Your task to perform on an android device: Open Chrome and go to settings Image 0: 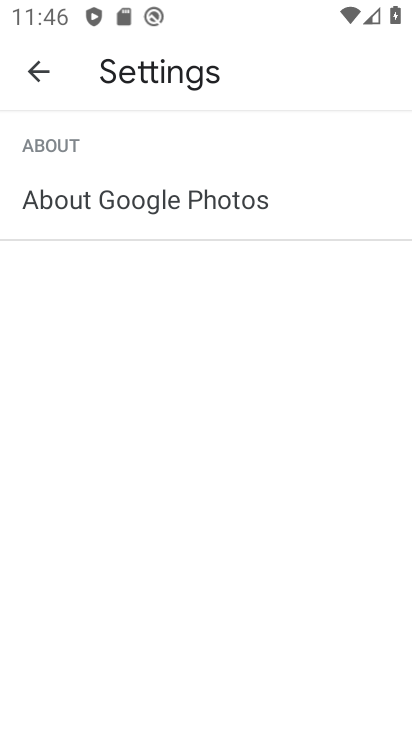
Step 0: press home button
Your task to perform on an android device: Open Chrome and go to settings Image 1: 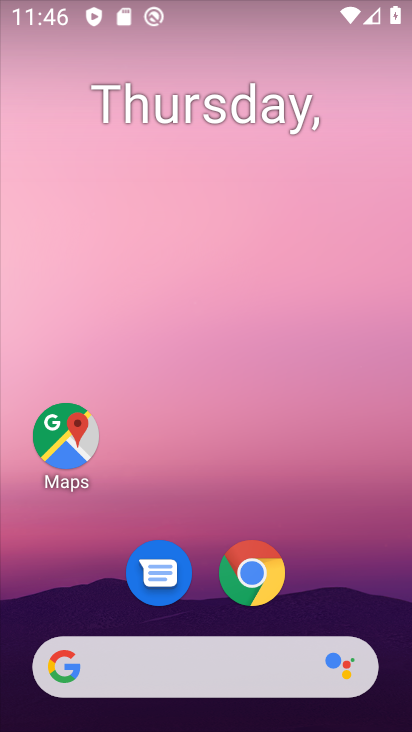
Step 1: click (253, 577)
Your task to perform on an android device: Open Chrome and go to settings Image 2: 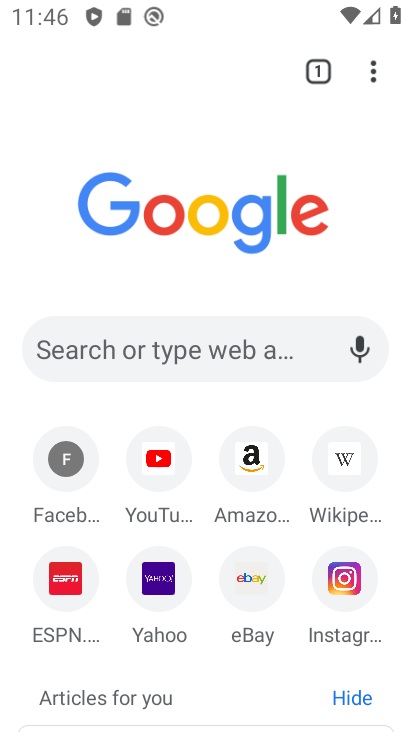
Step 2: click (368, 80)
Your task to perform on an android device: Open Chrome and go to settings Image 3: 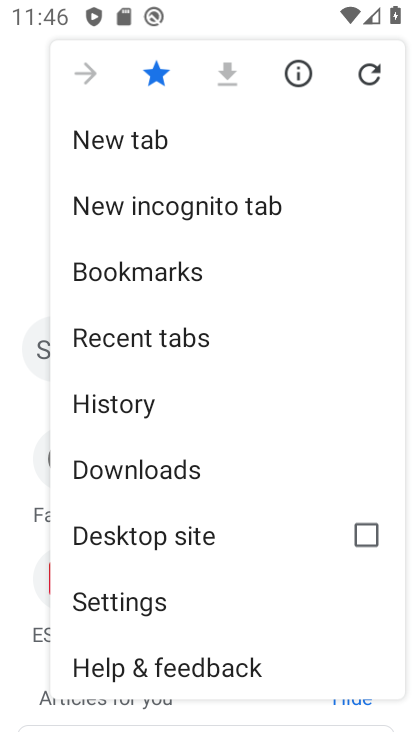
Step 3: click (165, 597)
Your task to perform on an android device: Open Chrome and go to settings Image 4: 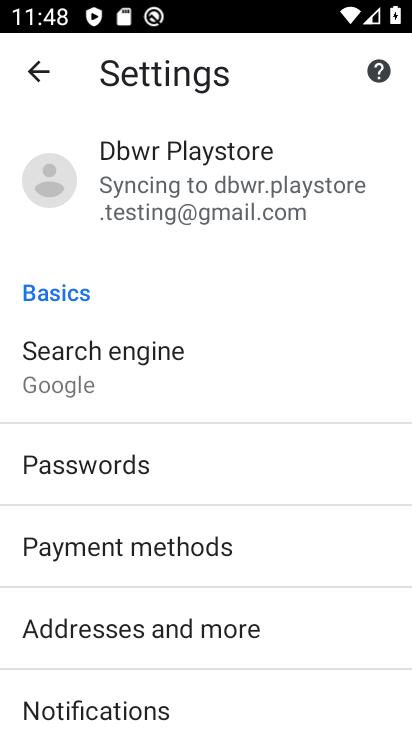
Step 4: task complete